Your task to perform on an android device: toggle javascript in the chrome app Image 0: 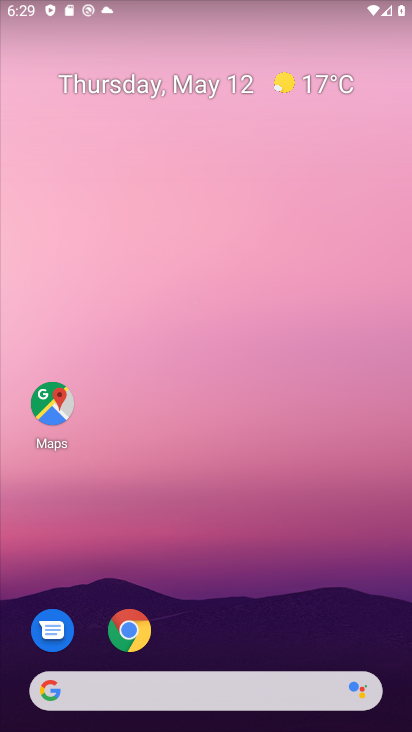
Step 0: drag from (240, 622) to (242, 115)
Your task to perform on an android device: toggle javascript in the chrome app Image 1: 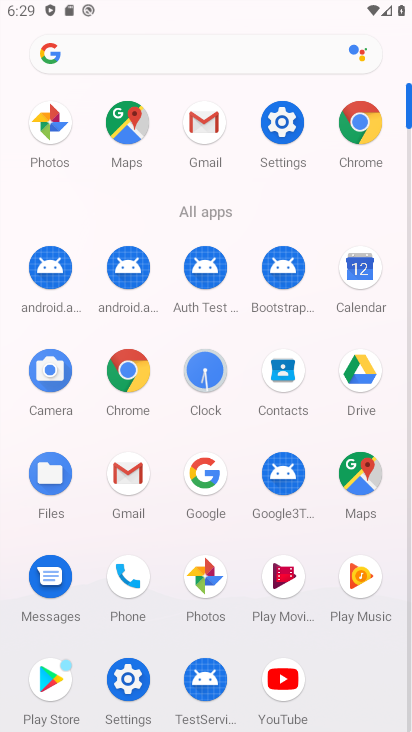
Step 1: click (126, 387)
Your task to perform on an android device: toggle javascript in the chrome app Image 2: 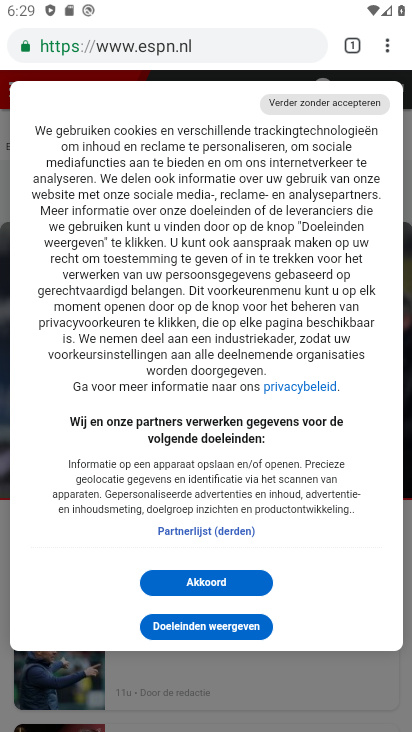
Step 2: press back button
Your task to perform on an android device: toggle javascript in the chrome app Image 3: 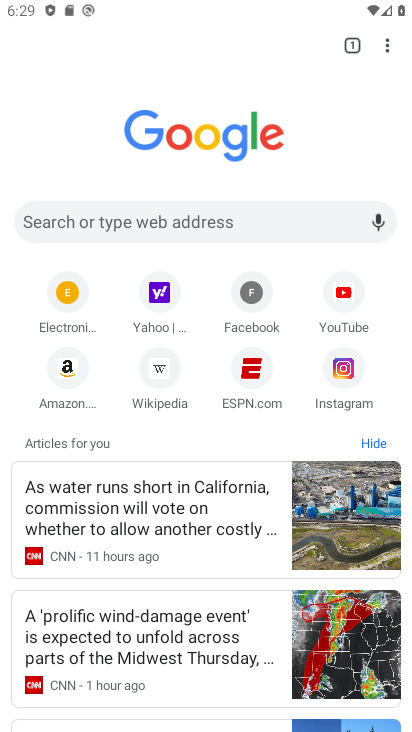
Step 3: click (388, 46)
Your task to perform on an android device: toggle javascript in the chrome app Image 4: 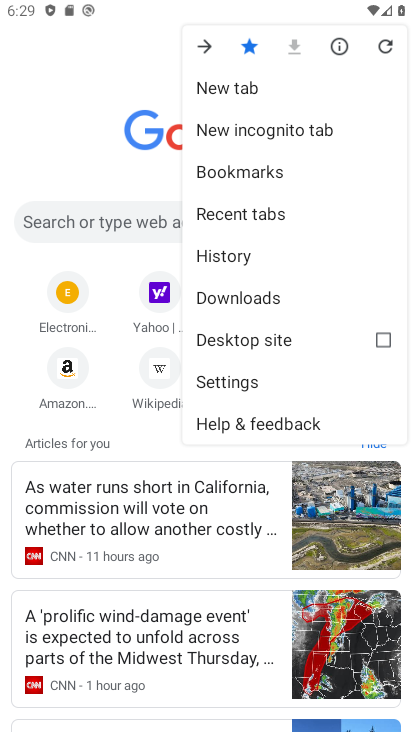
Step 4: click (267, 376)
Your task to perform on an android device: toggle javascript in the chrome app Image 5: 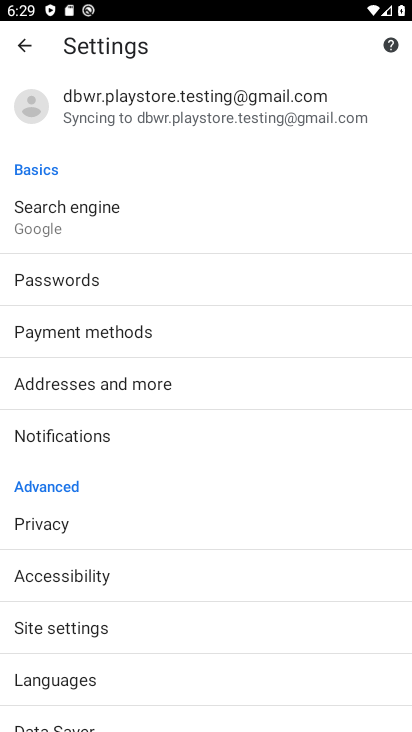
Step 5: click (112, 636)
Your task to perform on an android device: toggle javascript in the chrome app Image 6: 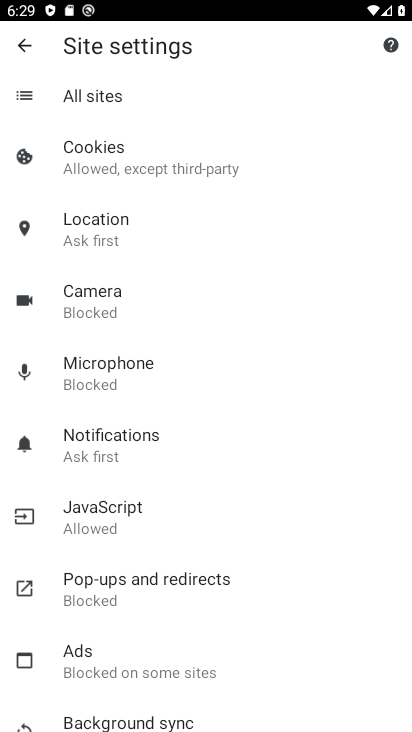
Step 6: click (139, 526)
Your task to perform on an android device: toggle javascript in the chrome app Image 7: 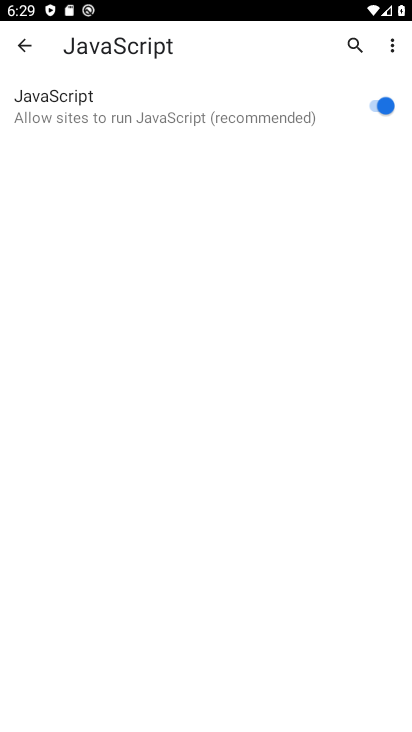
Step 7: click (350, 95)
Your task to perform on an android device: toggle javascript in the chrome app Image 8: 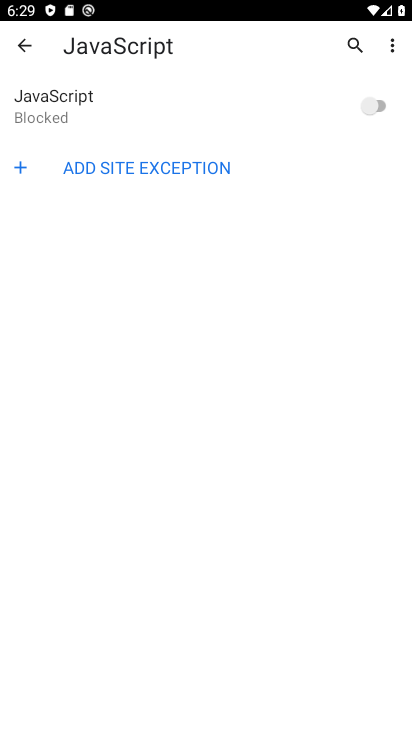
Step 8: task complete